Your task to perform on an android device: Open Chrome and go to settings Image 0: 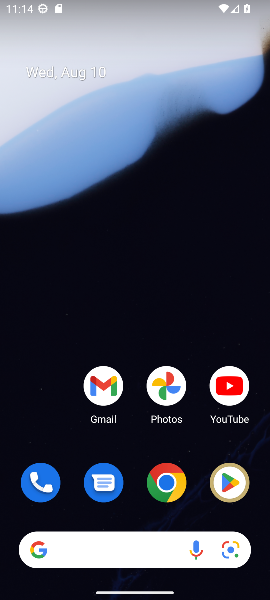
Step 0: drag from (178, 241) to (188, 72)
Your task to perform on an android device: Open Chrome and go to settings Image 1: 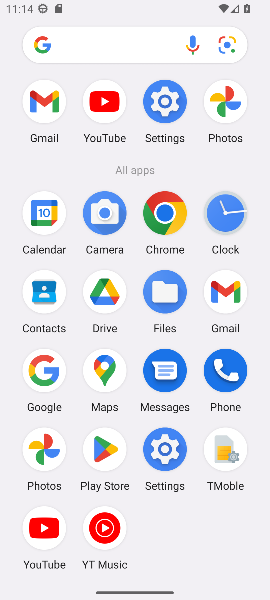
Step 1: click (150, 458)
Your task to perform on an android device: Open Chrome and go to settings Image 2: 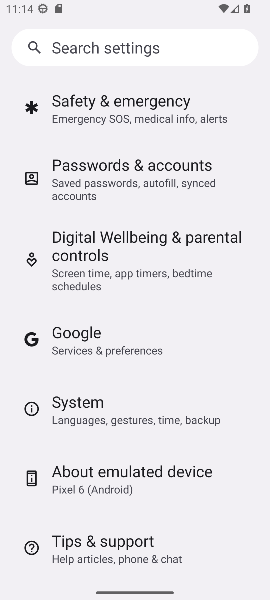
Step 2: task complete